Your task to perform on an android device: Open Youtube and go to the subscriptions tab Image 0: 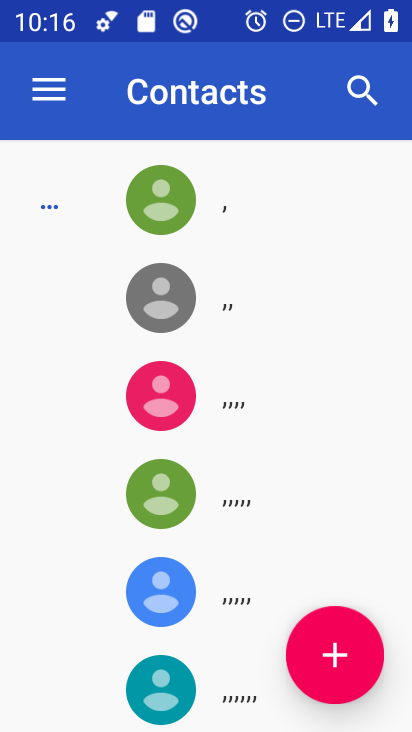
Step 0: press home button
Your task to perform on an android device: Open Youtube and go to the subscriptions tab Image 1: 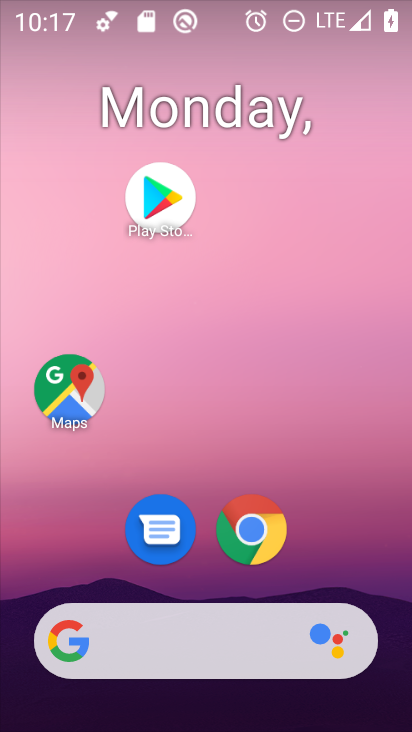
Step 1: drag from (317, 555) to (164, 55)
Your task to perform on an android device: Open Youtube and go to the subscriptions tab Image 2: 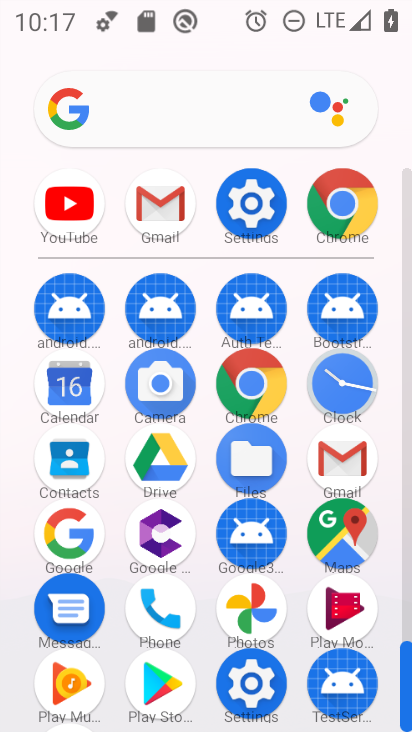
Step 2: click (71, 204)
Your task to perform on an android device: Open Youtube and go to the subscriptions tab Image 3: 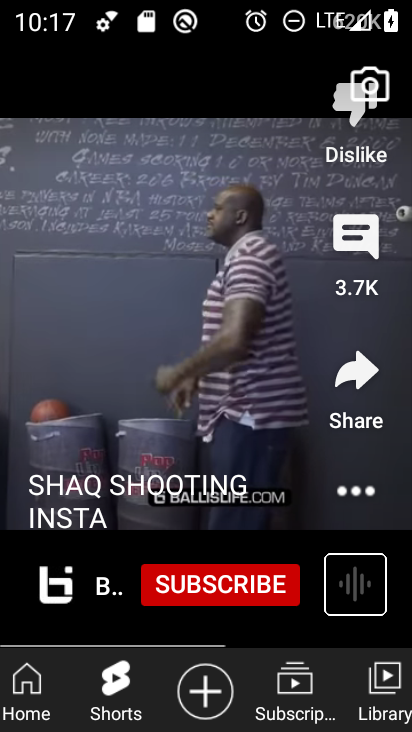
Step 3: press home button
Your task to perform on an android device: Open Youtube and go to the subscriptions tab Image 4: 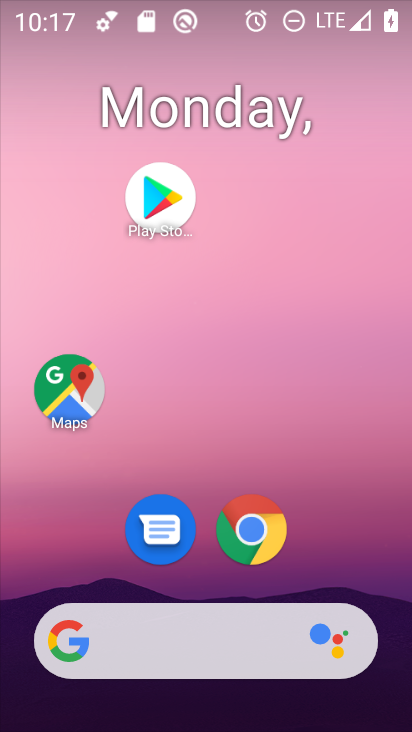
Step 4: drag from (327, 534) to (179, 50)
Your task to perform on an android device: Open Youtube and go to the subscriptions tab Image 5: 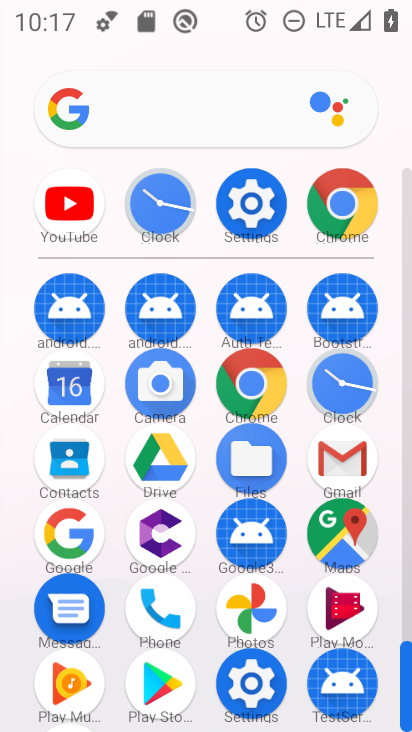
Step 5: click (63, 197)
Your task to perform on an android device: Open Youtube and go to the subscriptions tab Image 6: 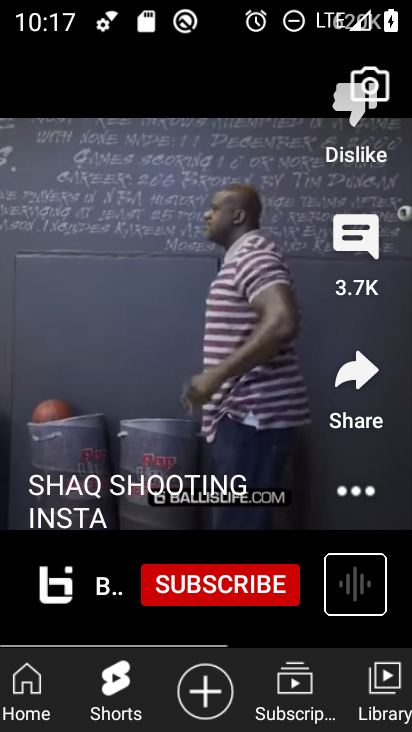
Step 6: click (296, 688)
Your task to perform on an android device: Open Youtube and go to the subscriptions tab Image 7: 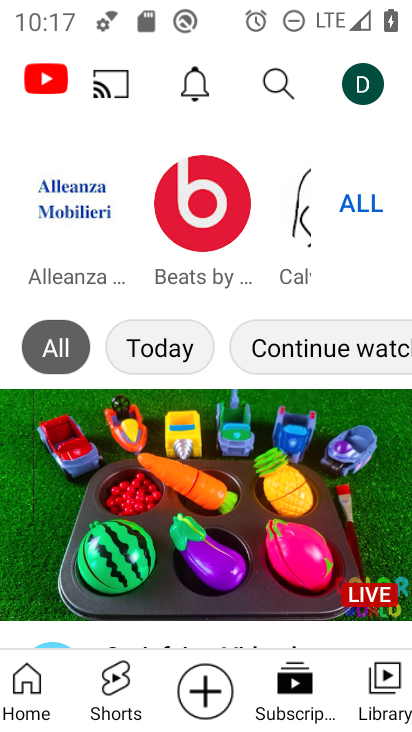
Step 7: task complete